Your task to perform on an android device: empty trash in the gmail app Image 0: 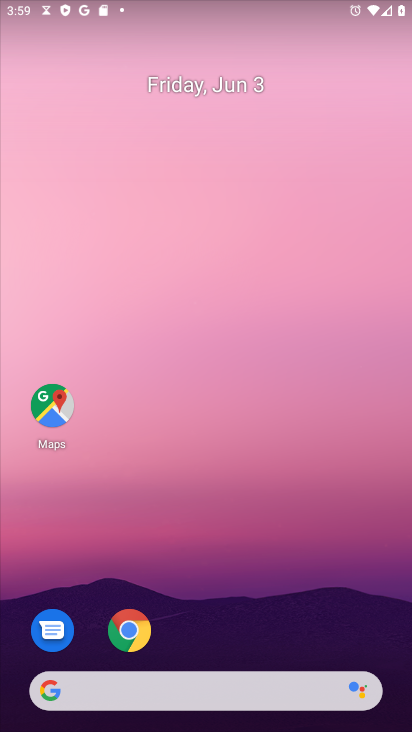
Step 0: drag from (235, 597) to (235, 11)
Your task to perform on an android device: empty trash in the gmail app Image 1: 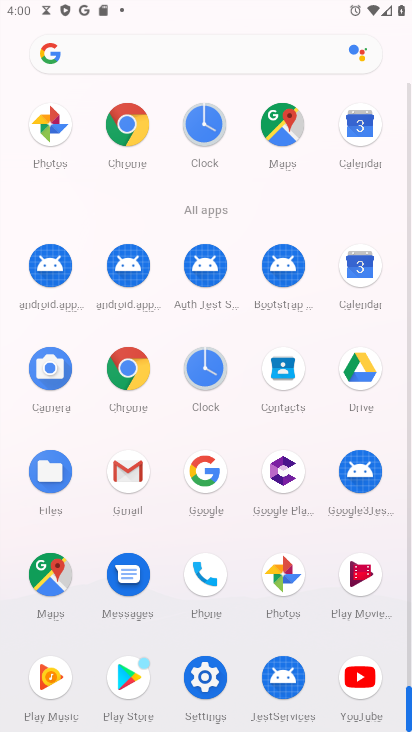
Step 1: click (128, 365)
Your task to perform on an android device: empty trash in the gmail app Image 2: 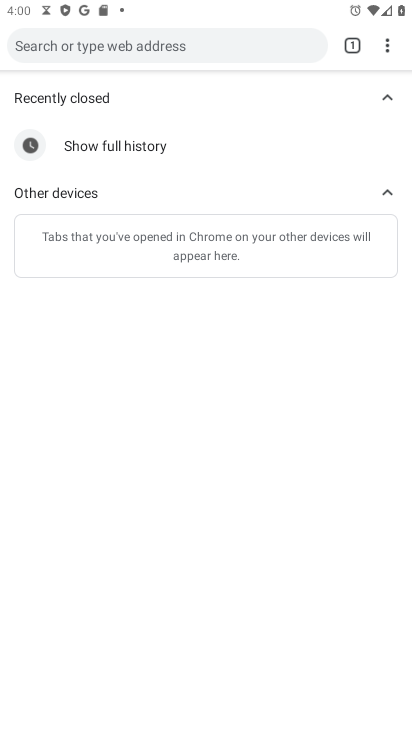
Step 2: press back button
Your task to perform on an android device: empty trash in the gmail app Image 3: 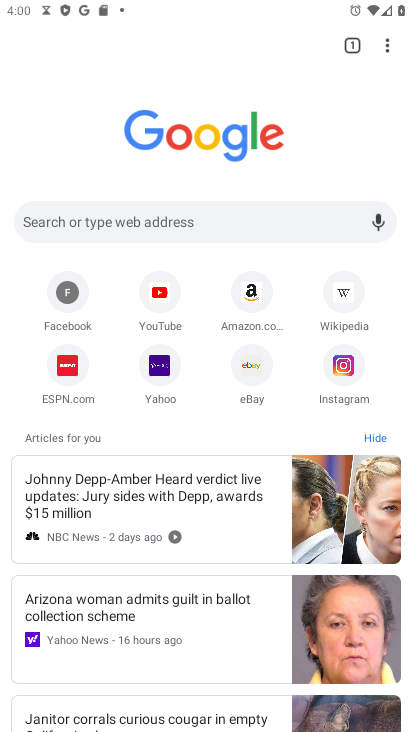
Step 3: press back button
Your task to perform on an android device: empty trash in the gmail app Image 4: 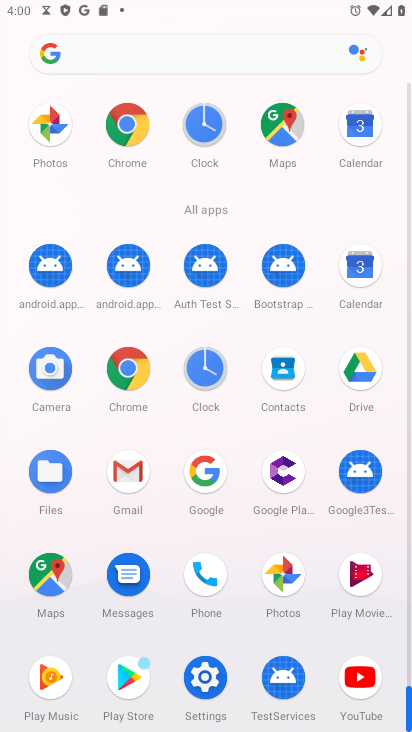
Step 4: click (127, 466)
Your task to perform on an android device: empty trash in the gmail app Image 5: 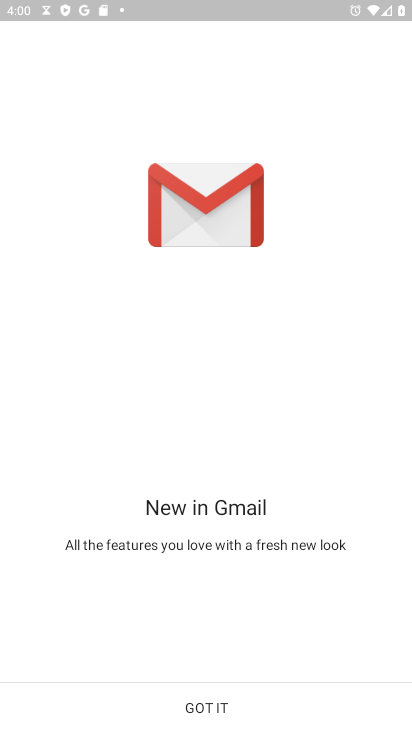
Step 5: click (218, 703)
Your task to perform on an android device: empty trash in the gmail app Image 6: 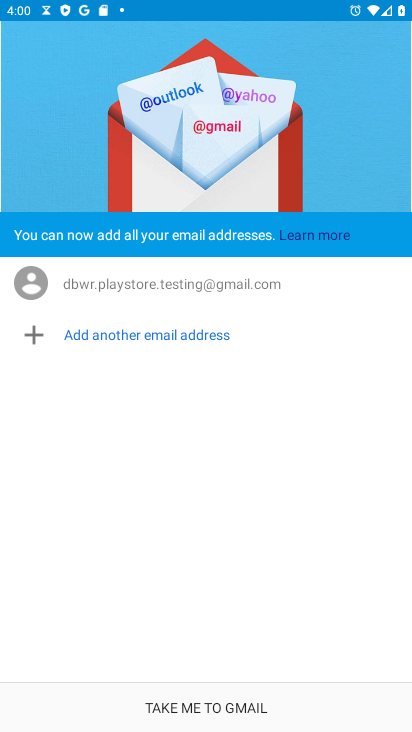
Step 6: click (182, 698)
Your task to perform on an android device: empty trash in the gmail app Image 7: 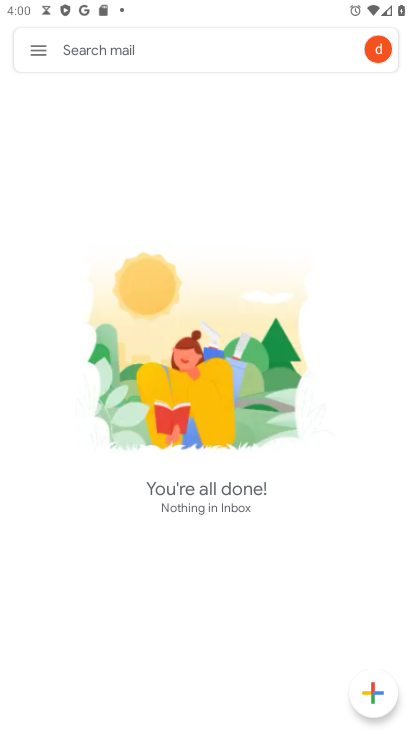
Step 7: click (33, 39)
Your task to perform on an android device: empty trash in the gmail app Image 8: 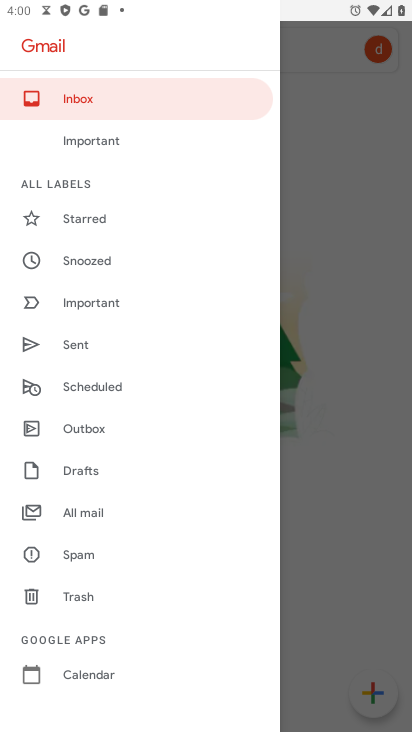
Step 8: click (81, 586)
Your task to perform on an android device: empty trash in the gmail app Image 9: 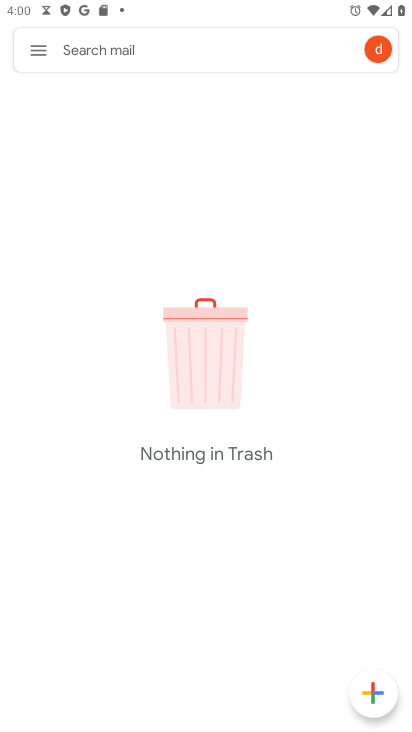
Step 9: task complete